Your task to perform on an android device: open chrome and create a bookmark for the current page Image 0: 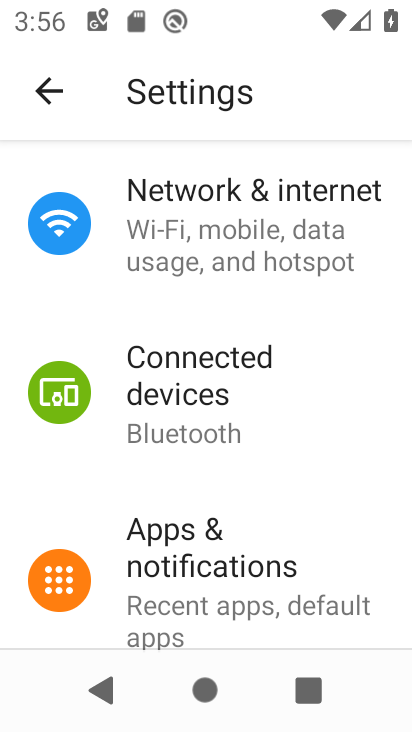
Step 0: press home button
Your task to perform on an android device: open chrome and create a bookmark for the current page Image 1: 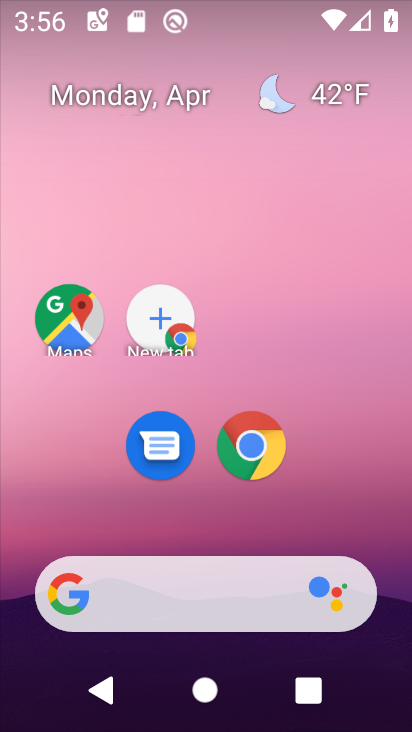
Step 1: click (254, 445)
Your task to perform on an android device: open chrome and create a bookmark for the current page Image 2: 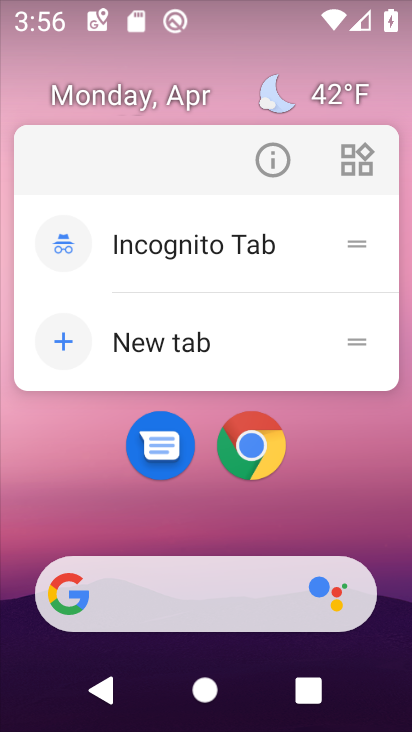
Step 2: click (254, 445)
Your task to perform on an android device: open chrome and create a bookmark for the current page Image 3: 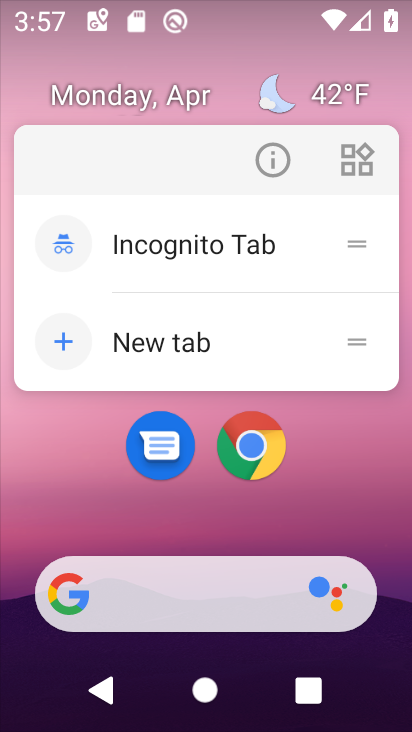
Step 3: click (260, 446)
Your task to perform on an android device: open chrome and create a bookmark for the current page Image 4: 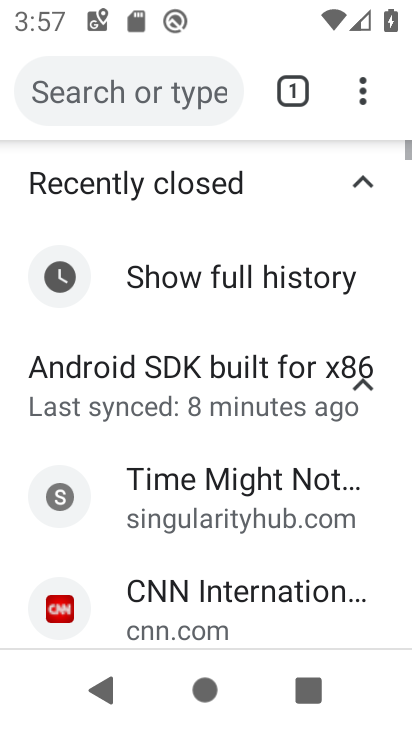
Step 4: click (288, 97)
Your task to perform on an android device: open chrome and create a bookmark for the current page Image 5: 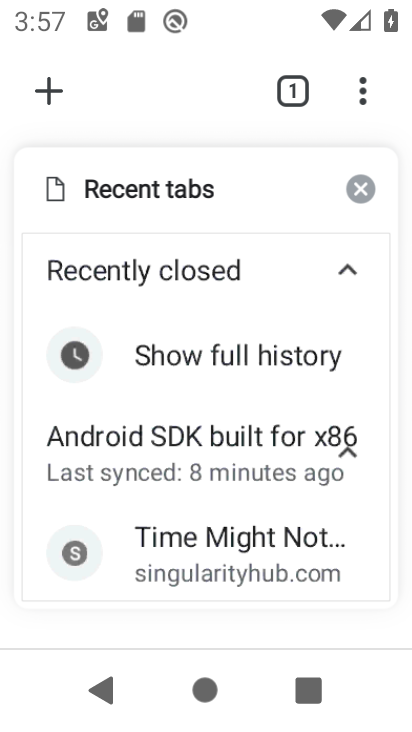
Step 5: click (42, 90)
Your task to perform on an android device: open chrome and create a bookmark for the current page Image 6: 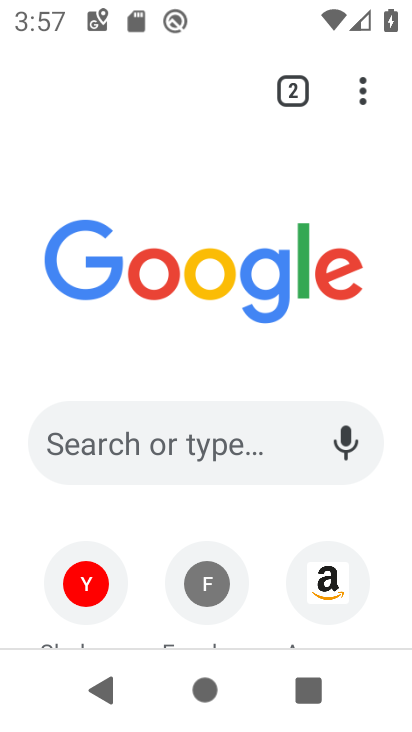
Step 6: click (164, 429)
Your task to perform on an android device: open chrome and create a bookmark for the current page Image 7: 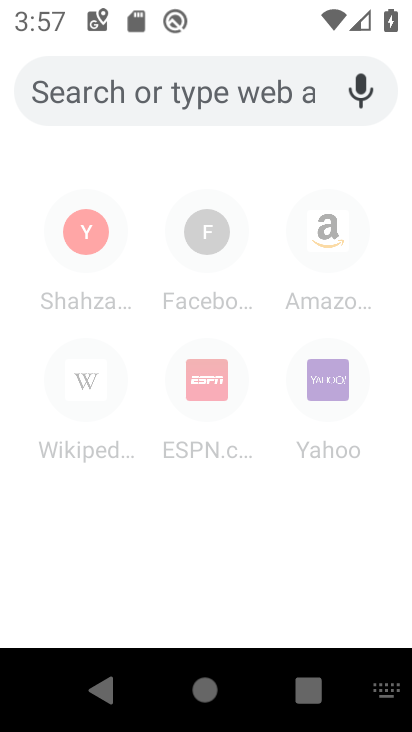
Step 7: type "meesho"
Your task to perform on an android device: open chrome and create a bookmark for the current page Image 8: 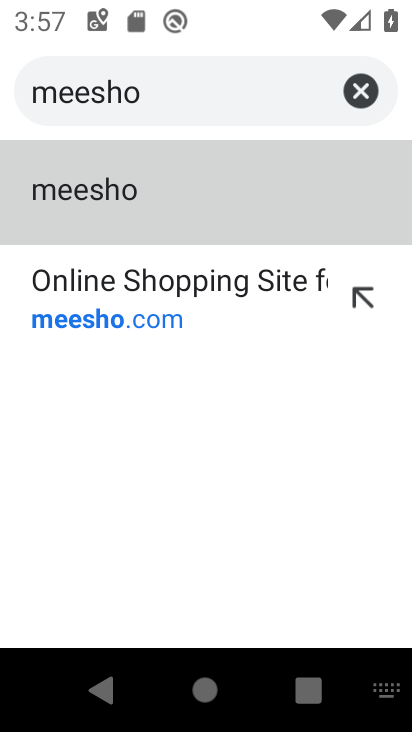
Step 8: click (168, 276)
Your task to perform on an android device: open chrome and create a bookmark for the current page Image 9: 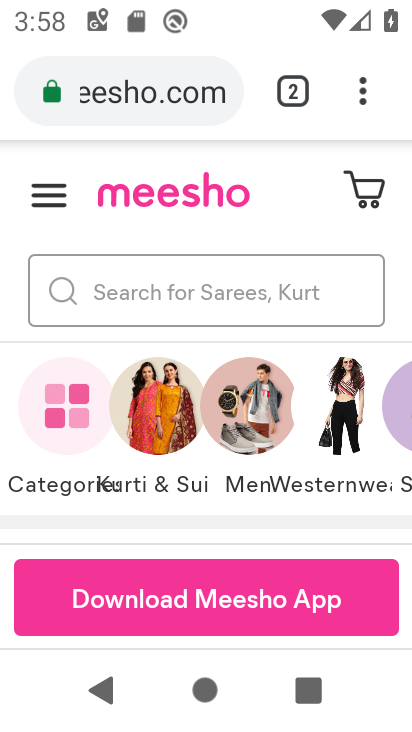
Step 9: click (363, 91)
Your task to perform on an android device: open chrome and create a bookmark for the current page Image 10: 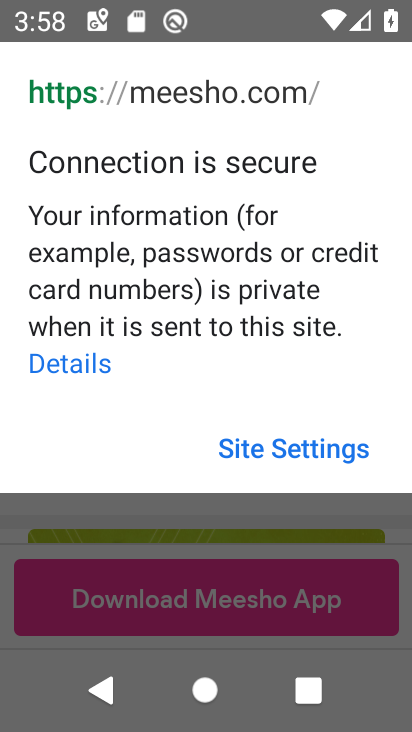
Step 10: click (234, 580)
Your task to perform on an android device: open chrome and create a bookmark for the current page Image 11: 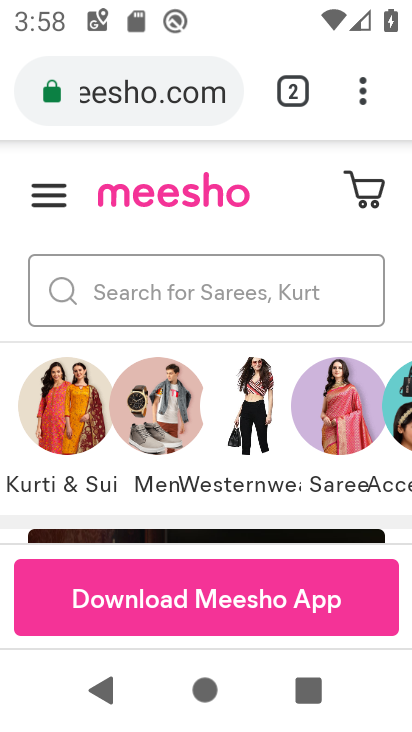
Step 11: click (89, 686)
Your task to perform on an android device: open chrome and create a bookmark for the current page Image 12: 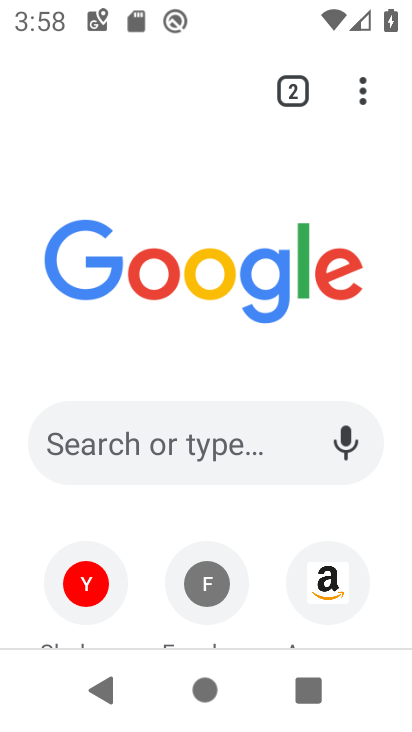
Step 12: click (170, 433)
Your task to perform on an android device: open chrome and create a bookmark for the current page Image 13: 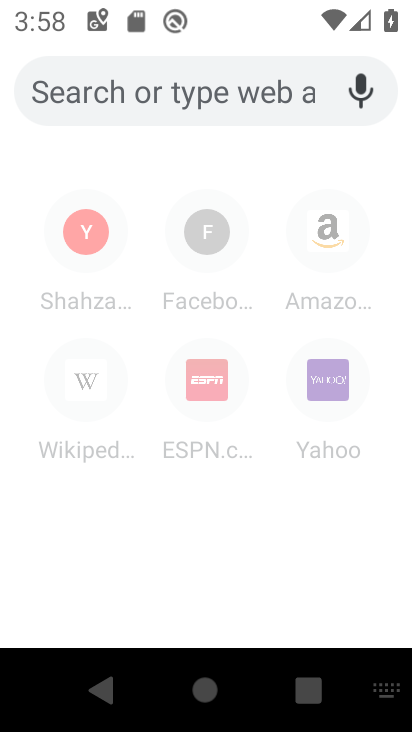
Step 13: type "whisper"
Your task to perform on an android device: open chrome and create a bookmark for the current page Image 14: 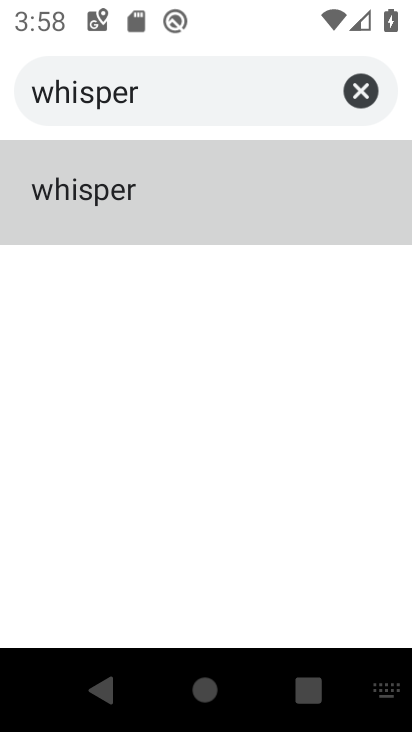
Step 14: click (117, 203)
Your task to perform on an android device: open chrome and create a bookmark for the current page Image 15: 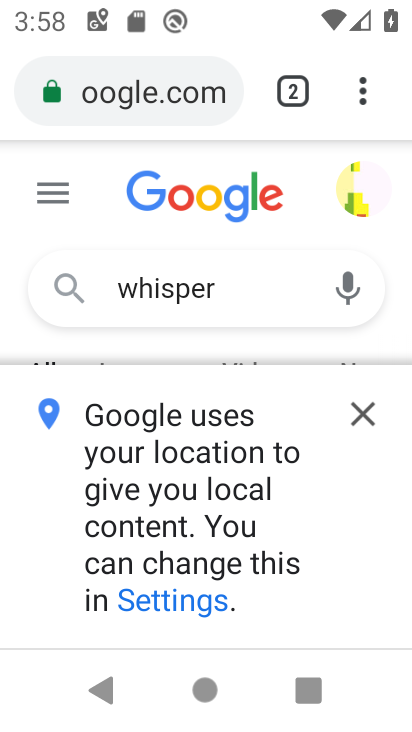
Step 15: click (366, 410)
Your task to perform on an android device: open chrome and create a bookmark for the current page Image 16: 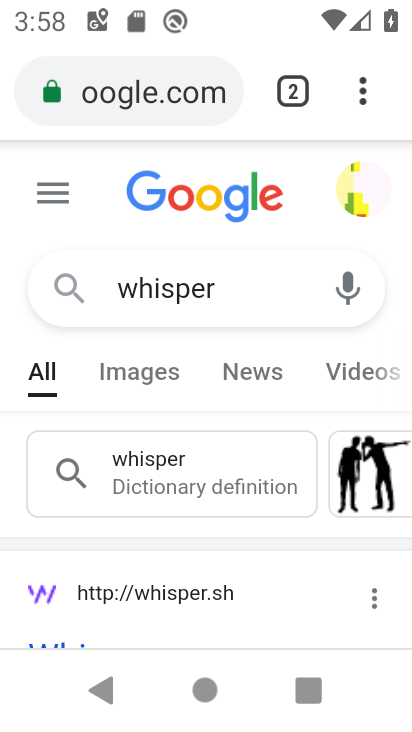
Step 16: drag from (194, 535) to (189, 217)
Your task to perform on an android device: open chrome and create a bookmark for the current page Image 17: 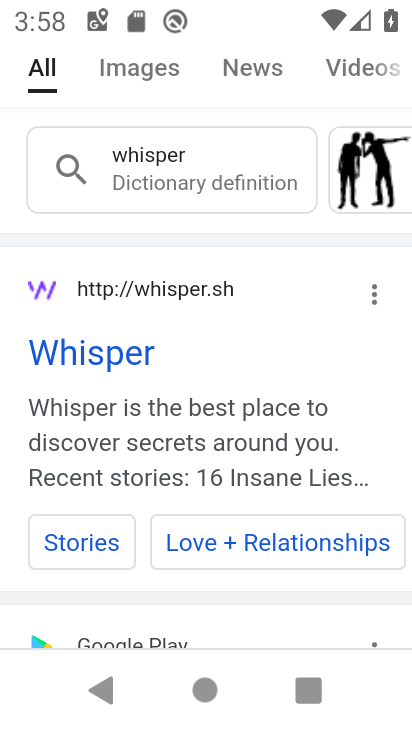
Step 17: click (106, 350)
Your task to perform on an android device: open chrome and create a bookmark for the current page Image 18: 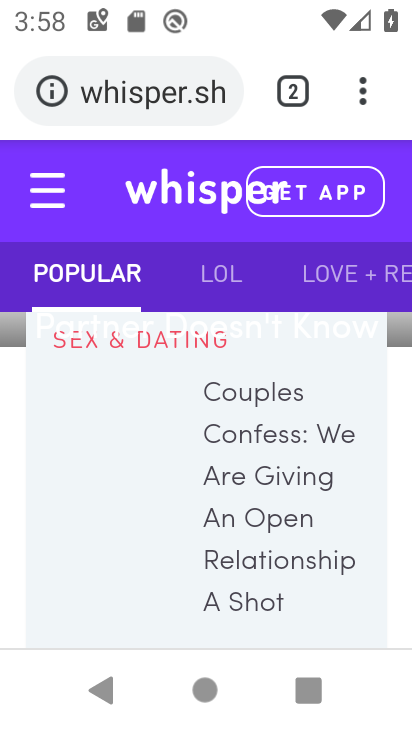
Step 18: click (349, 84)
Your task to perform on an android device: open chrome and create a bookmark for the current page Image 19: 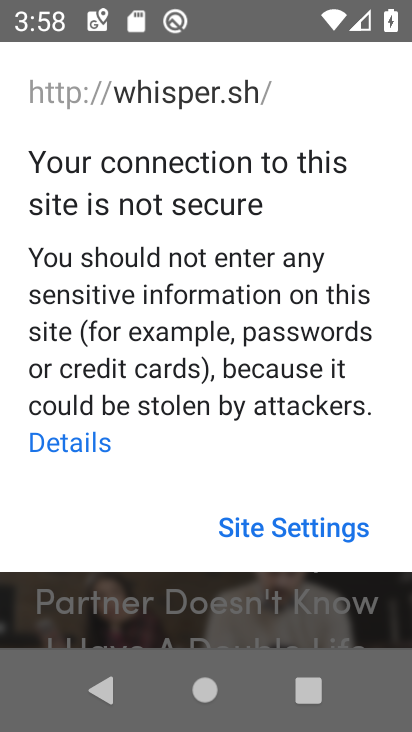
Step 19: click (190, 583)
Your task to perform on an android device: open chrome and create a bookmark for the current page Image 20: 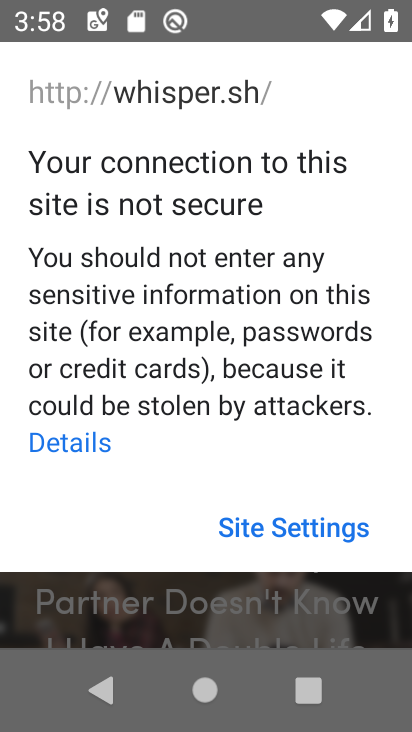
Step 20: click (151, 619)
Your task to perform on an android device: open chrome and create a bookmark for the current page Image 21: 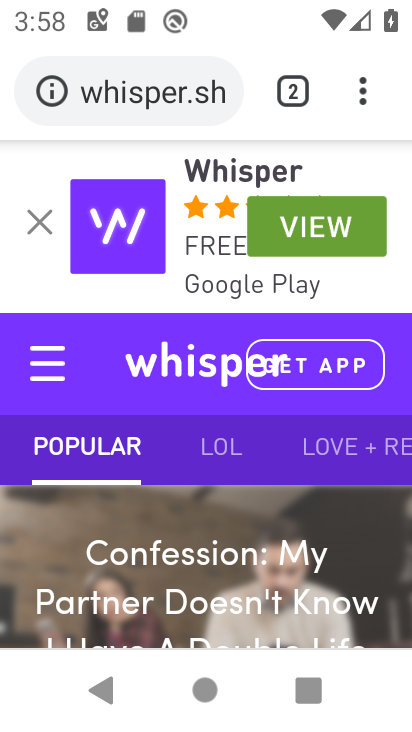
Step 21: click (361, 90)
Your task to perform on an android device: open chrome and create a bookmark for the current page Image 22: 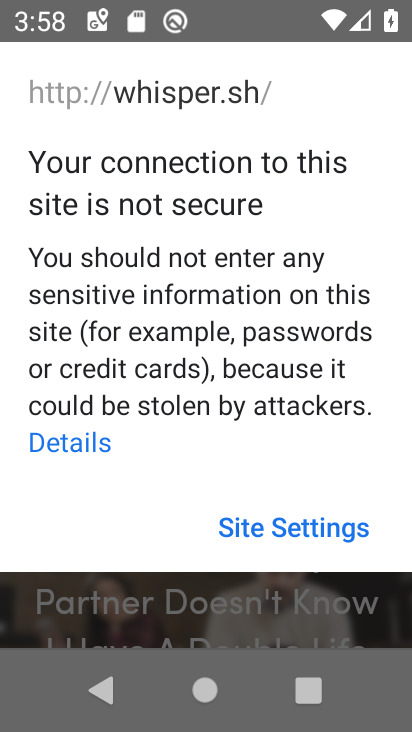
Step 22: click (151, 94)
Your task to perform on an android device: open chrome and create a bookmark for the current page Image 23: 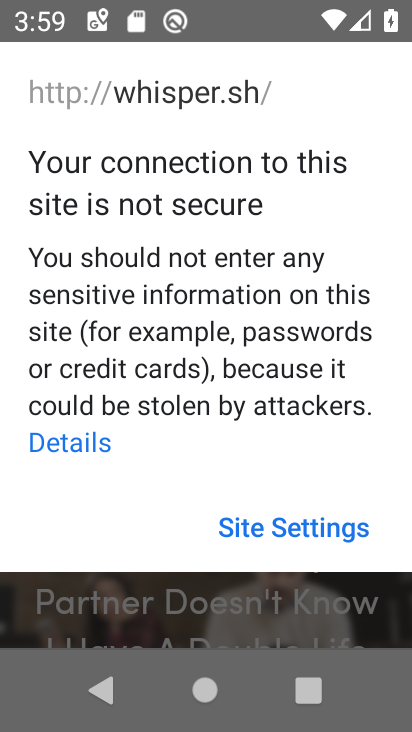
Step 23: click (191, 610)
Your task to perform on an android device: open chrome and create a bookmark for the current page Image 24: 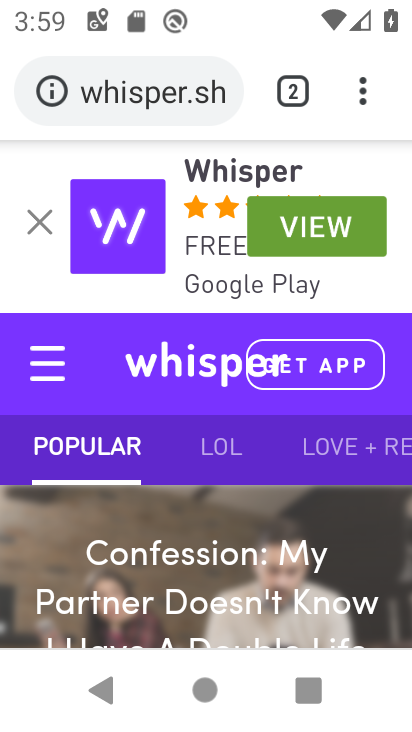
Step 24: click (359, 83)
Your task to perform on an android device: open chrome and create a bookmark for the current page Image 25: 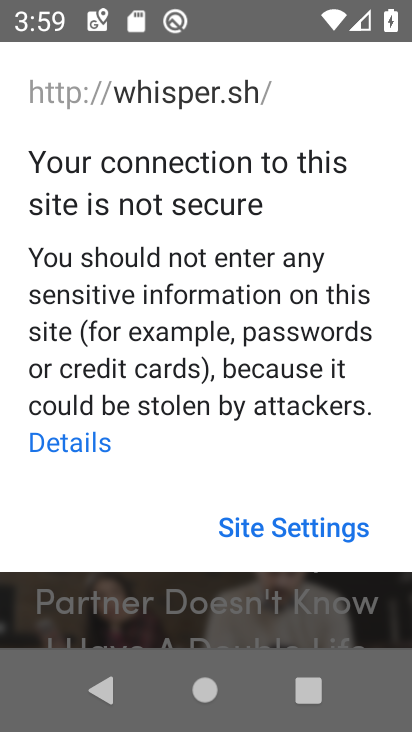
Step 25: click (141, 100)
Your task to perform on an android device: open chrome and create a bookmark for the current page Image 26: 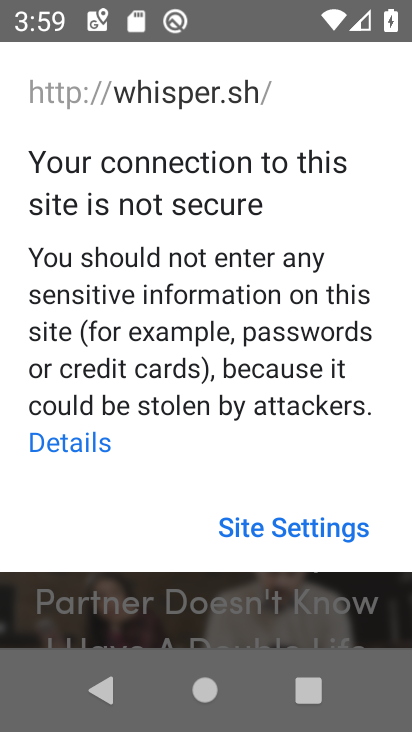
Step 26: task complete